Your task to perform on an android device: Open wifi settings Image 0: 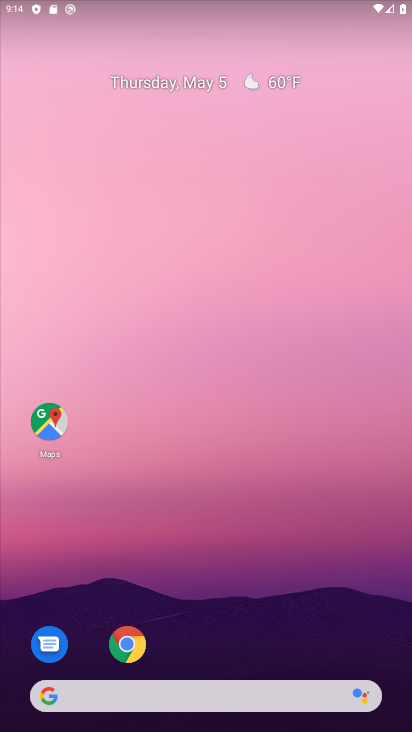
Step 0: drag from (343, 636) to (351, 161)
Your task to perform on an android device: Open wifi settings Image 1: 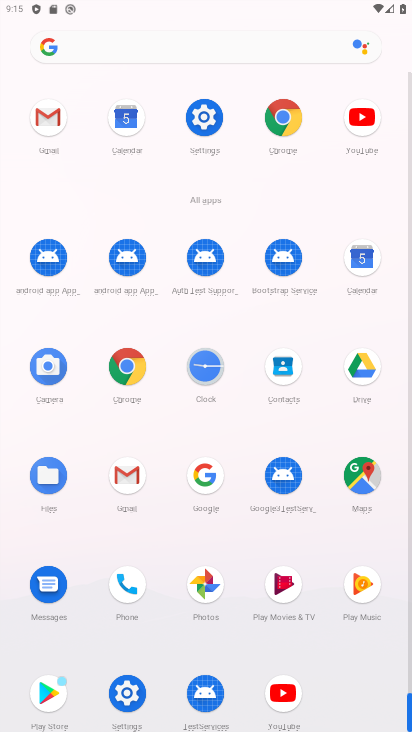
Step 1: click (121, 699)
Your task to perform on an android device: Open wifi settings Image 2: 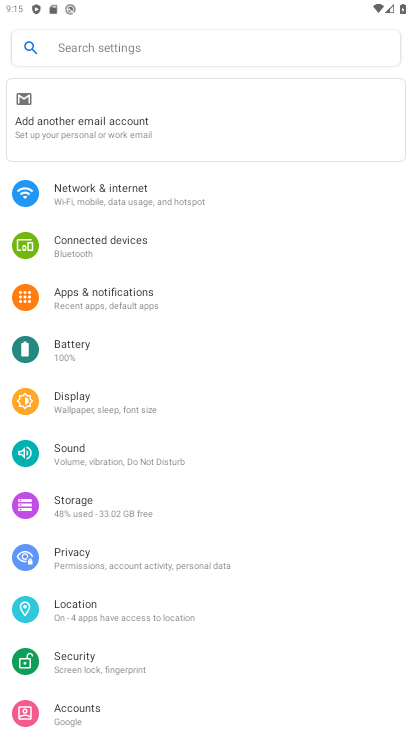
Step 2: click (116, 195)
Your task to perform on an android device: Open wifi settings Image 3: 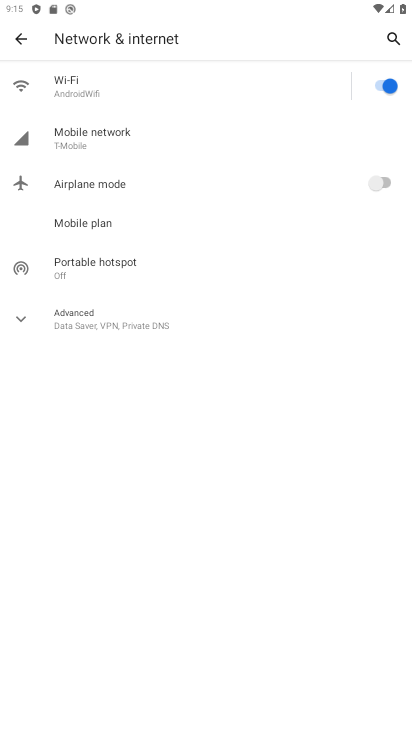
Step 3: click (95, 87)
Your task to perform on an android device: Open wifi settings Image 4: 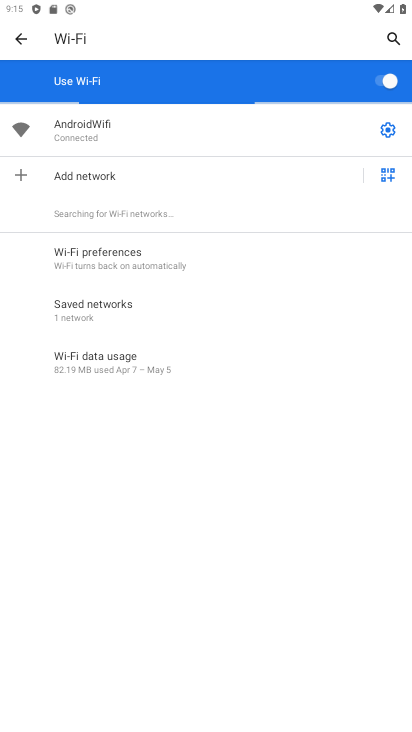
Step 4: click (388, 128)
Your task to perform on an android device: Open wifi settings Image 5: 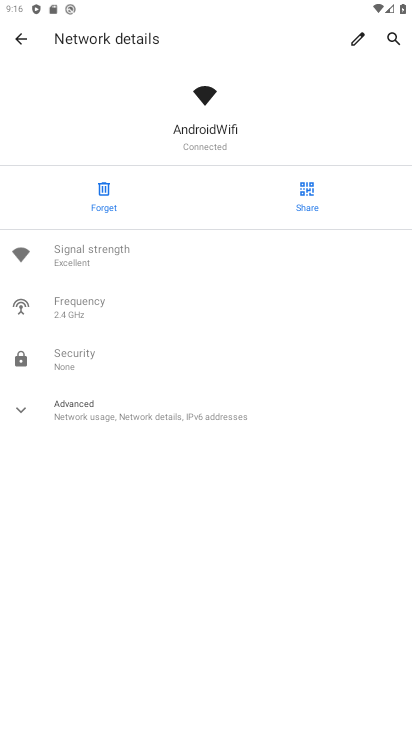
Step 5: task complete